Your task to perform on an android device: find photos in the google photos app Image 0: 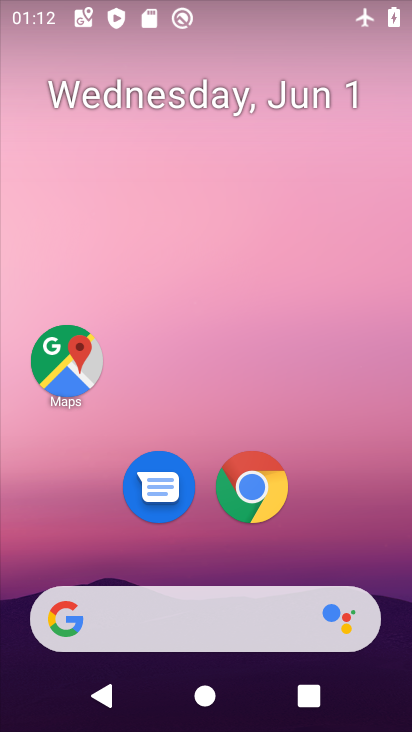
Step 0: drag from (327, 504) to (343, 250)
Your task to perform on an android device: find photos in the google photos app Image 1: 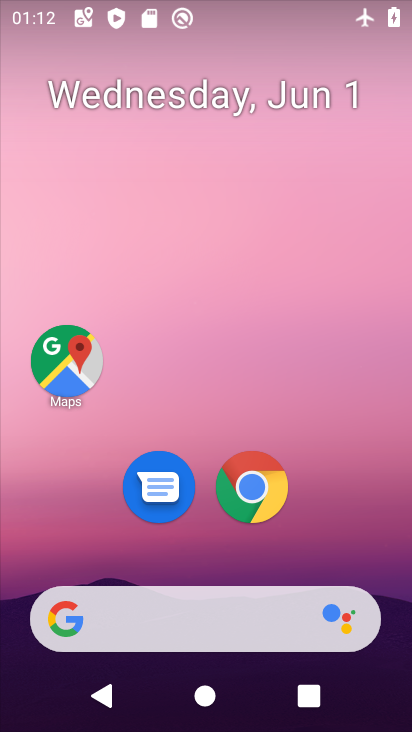
Step 1: drag from (295, 568) to (284, 134)
Your task to perform on an android device: find photos in the google photos app Image 2: 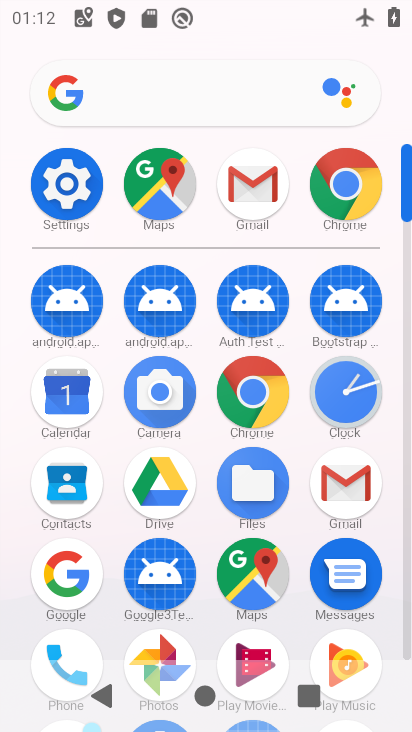
Step 2: drag from (207, 556) to (235, 410)
Your task to perform on an android device: find photos in the google photos app Image 3: 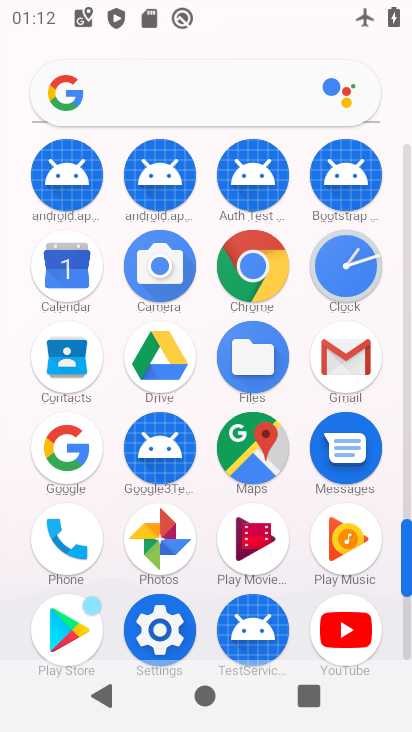
Step 3: click (148, 544)
Your task to perform on an android device: find photos in the google photos app Image 4: 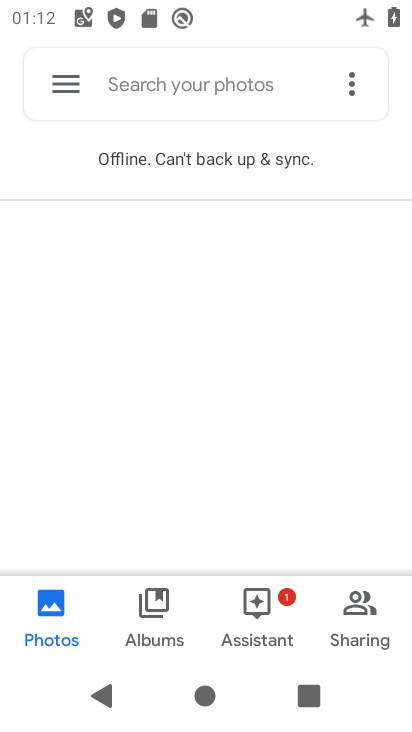
Step 4: click (149, 605)
Your task to perform on an android device: find photos in the google photos app Image 5: 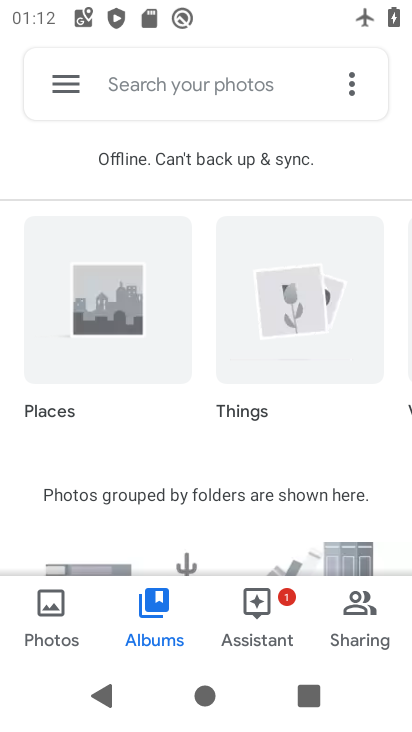
Step 5: task complete